Your task to perform on an android device: Turn off the flashlight Image 0: 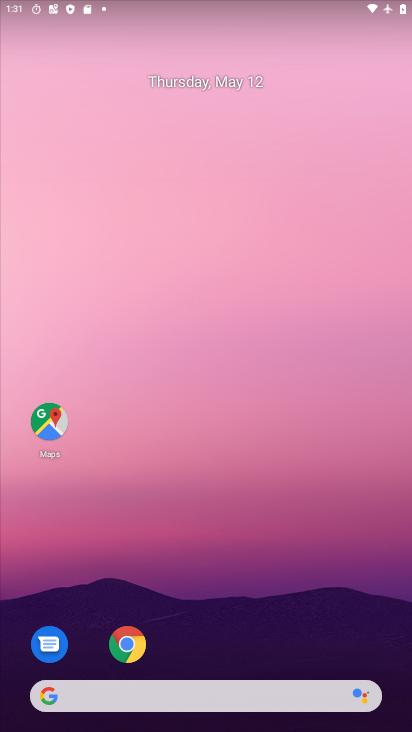
Step 0: drag from (290, 9) to (244, 493)
Your task to perform on an android device: Turn off the flashlight Image 1: 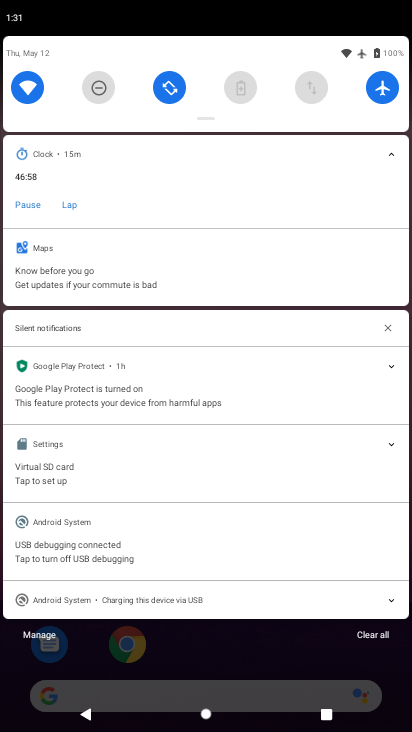
Step 1: task complete